Your task to perform on an android device: uninstall "Microsoft Outlook" Image 0: 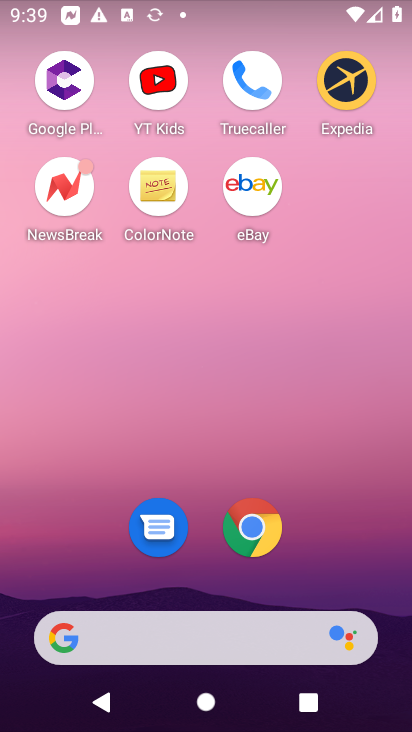
Step 0: drag from (177, 510) to (214, 21)
Your task to perform on an android device: uninstall "Microsoft Outlook" Image 1: 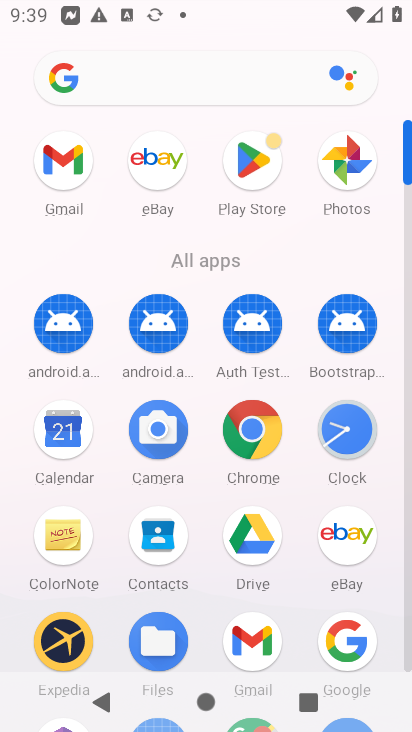
Step 1: click (259, 170)
Your task to perform on an android device: uninstall "Microsoft Outlook" Image 2: 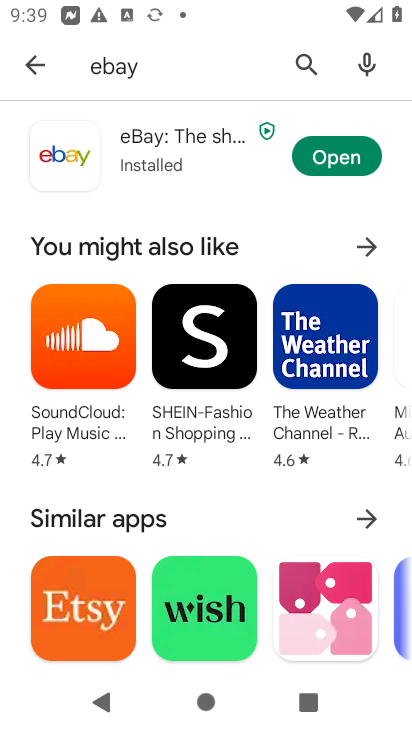
Step 2: click (170, 71)
Your task to perform on an android device: uninstall "Microsoft Outlook" Image 3: 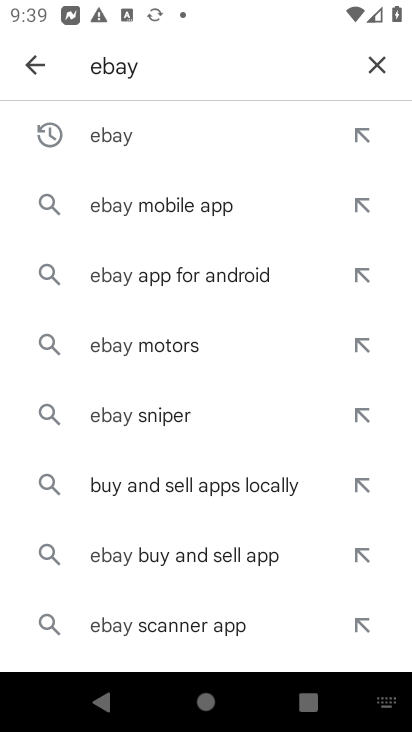
Step 3: click (384, 63)
Your task to perform on an android device: uninstall "Microsoft Outlook" Image 4: 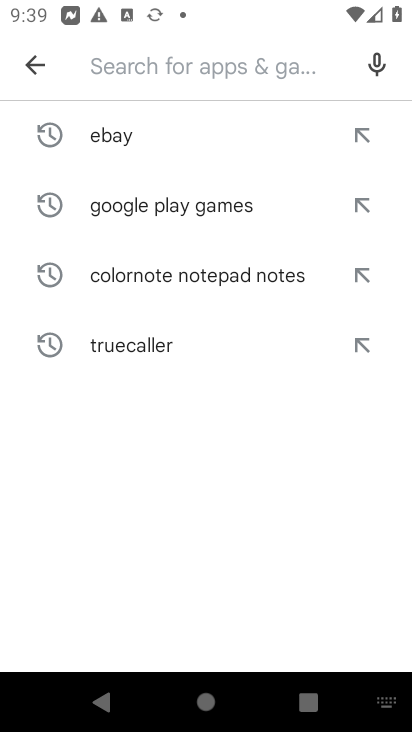
Step 4: type "microsoft Outlook"
Your task to perform on an android device: uninstall "Microsoft Outlook" Image 5: 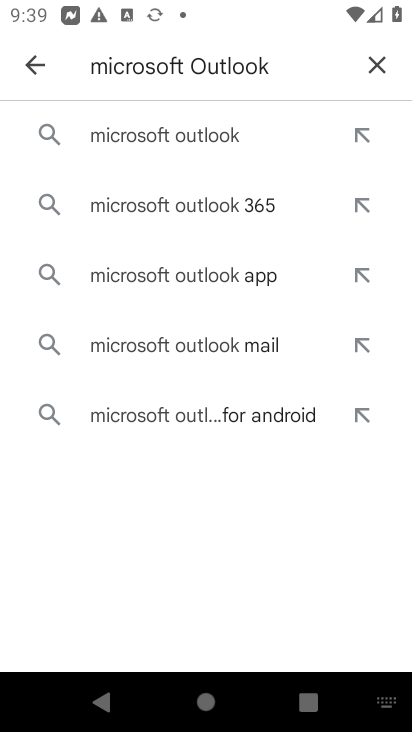
Step 5: click (211, 144)
Your task to perform on an android device: uninstall "Microsoft Outlook" Image 6: 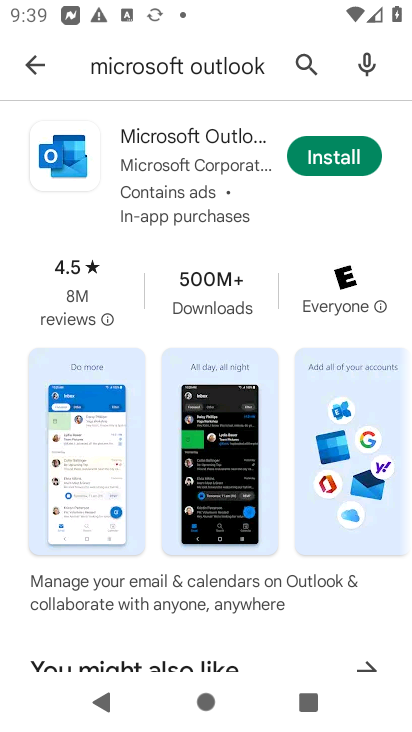
Step 6: task complete